Your task to perform on an android device: toggle wifi Image 0: 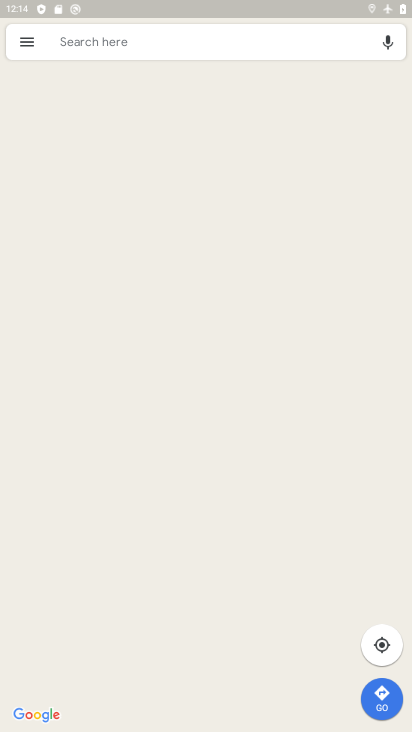
Step 0: press home button
Your task to perform on an android device: toggle wifi Image 1: 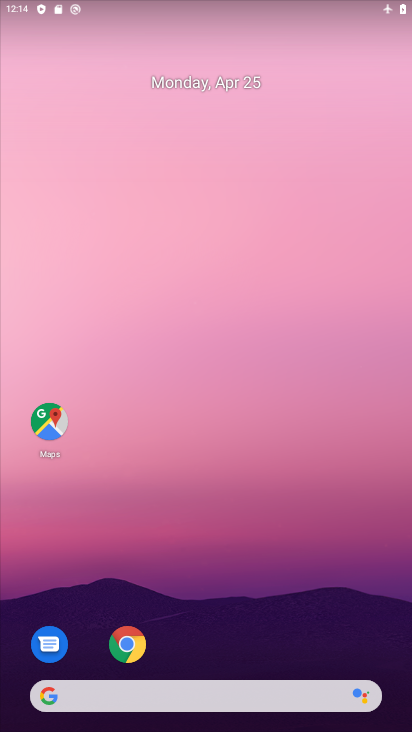
Step 1: drag from (224, 593) to (269, 25)
Your task to perform on an android device: toggle wifi Image 2: 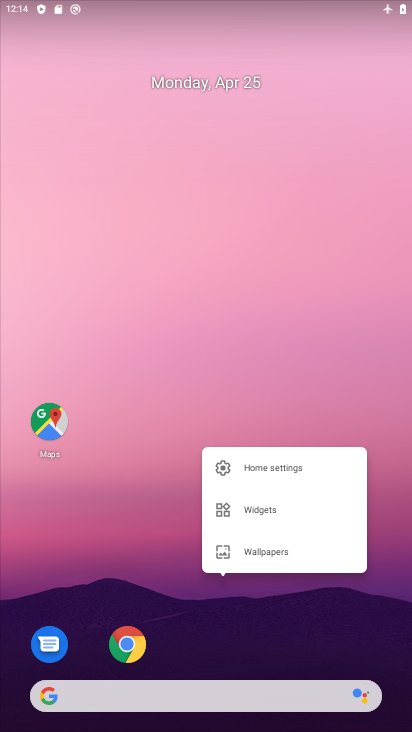
Step 2: click (139, 480)
Your task to perform on an android device: toggle wifi Image 3: 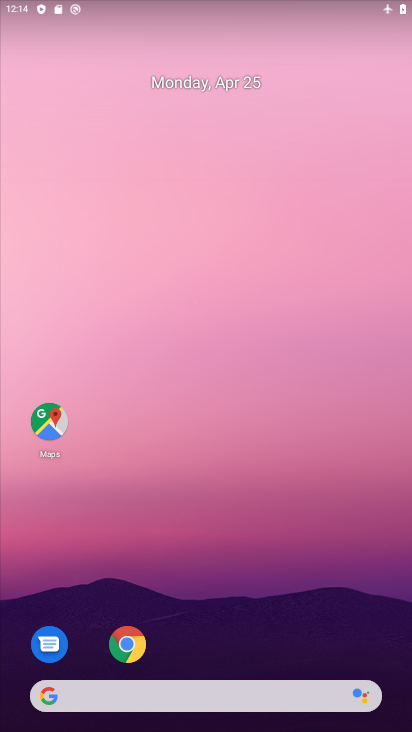
Step 3: drag from (210, 599) to (232, 124)
Your task to perform on an android device: toggle wifi Image 4: 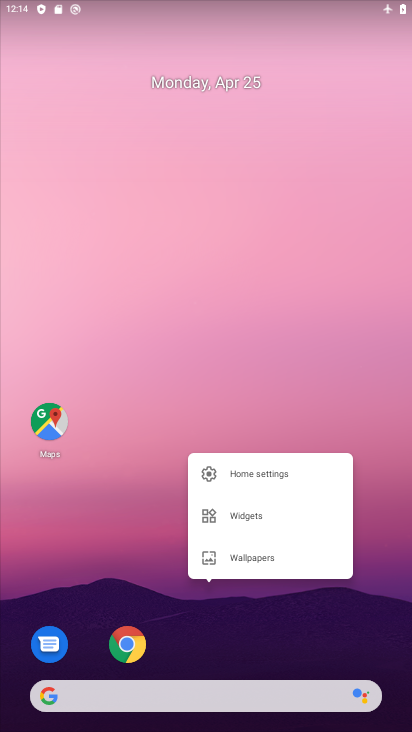
Step 4: click (210, 619)
Your task to perform on an android device: toggle wifi Image 5: 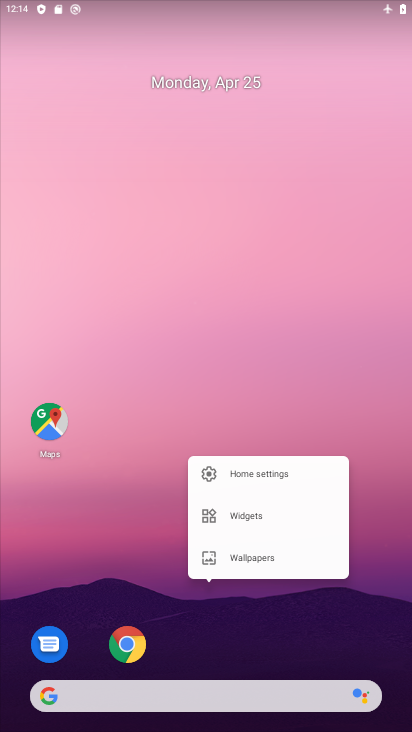
Step 5: drag from (210, 619) to (237, 263)
Your task to perform on an android device: toggle wifi Image 6: 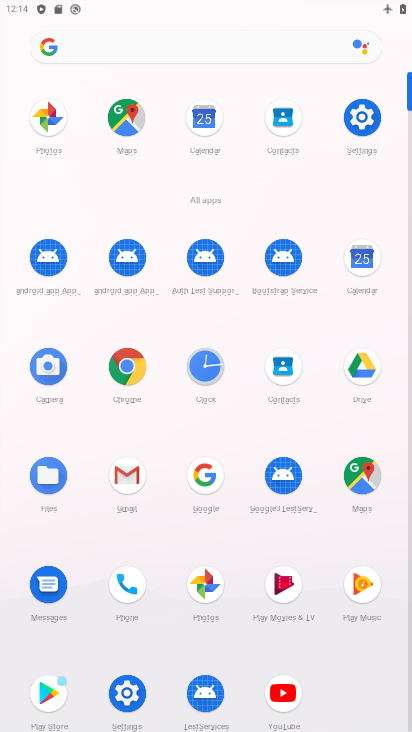
Step 6: click (370, 133)
Your task to perform on an android device: toggle wifi Image 7: 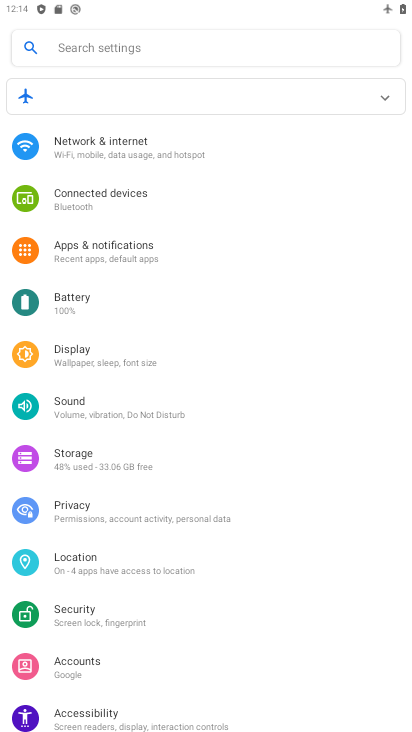
Step 7: click (225, 160)
Your task to perform on an android device: toggle wifi Image 8: 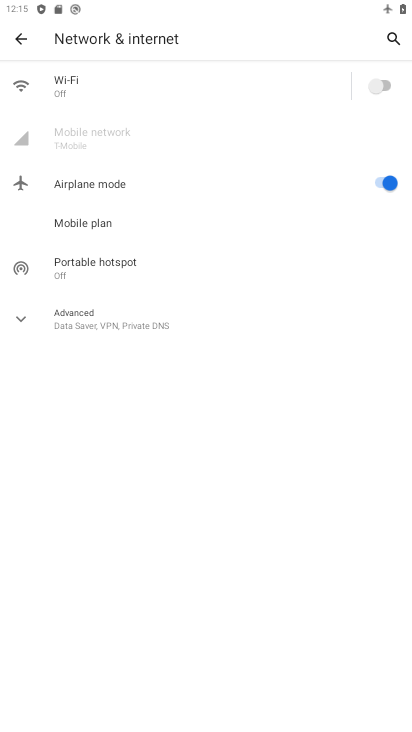
Step 8: click (377, 92)
Your task to perform on an android device: toggle wifi Image 9: 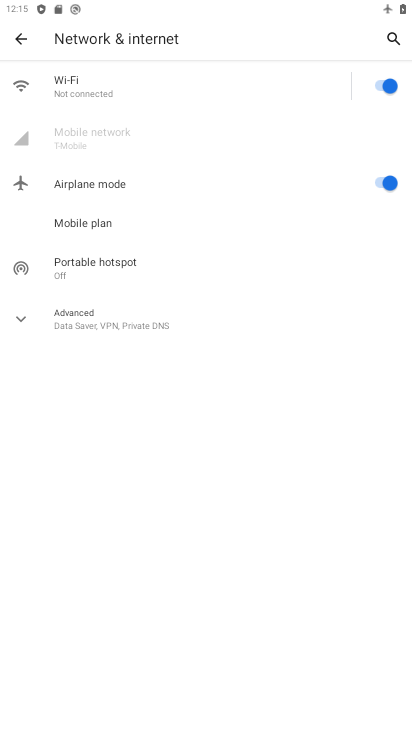
Step 9: task complete